Your task to perform on an android device: Go to Reddit.com Image 0: 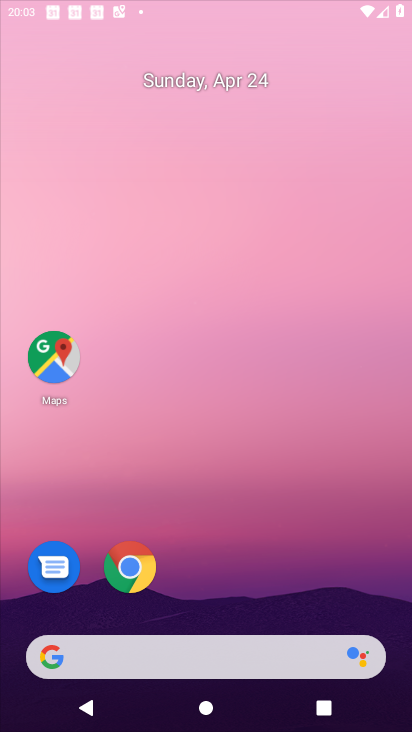
Step 0: click (226, 169)
Your task to perform on an android device: Go to Reddit.com Image 1: 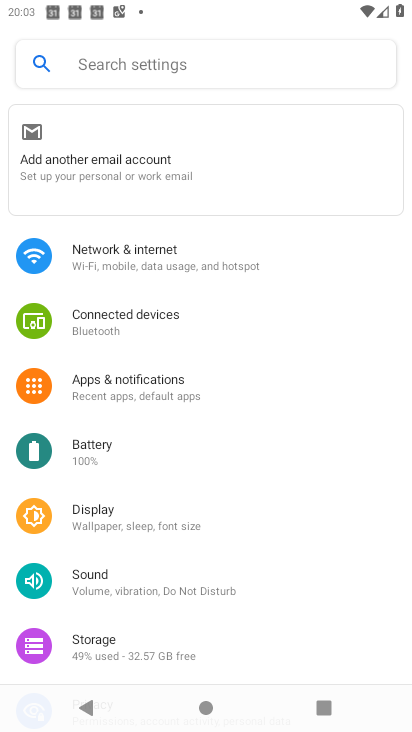
Step 1: press home button
Your task to perform on an android device: Go to Reddit.com Image 2: 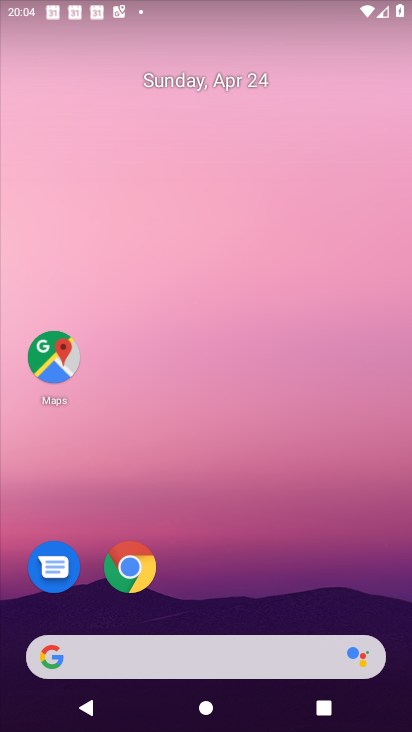
Step 2: drag from (351, 690) to (276, 103)
Your task to perform on an android device: Go to Reddit.com Image 3: 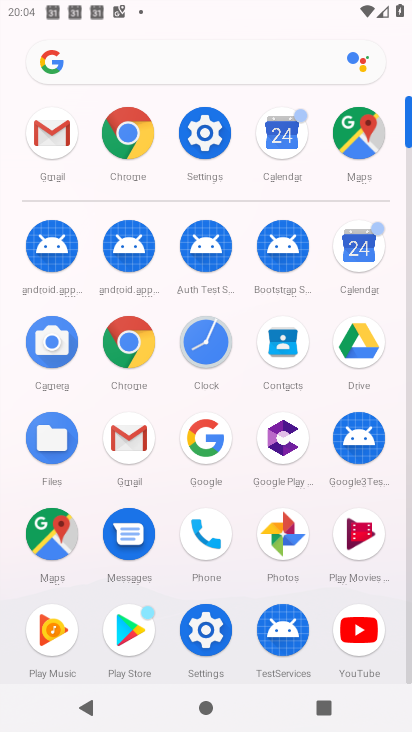
Step 3: click (138, 133)
Your task to perform on an android device: Go to Reddit.com Image 4: 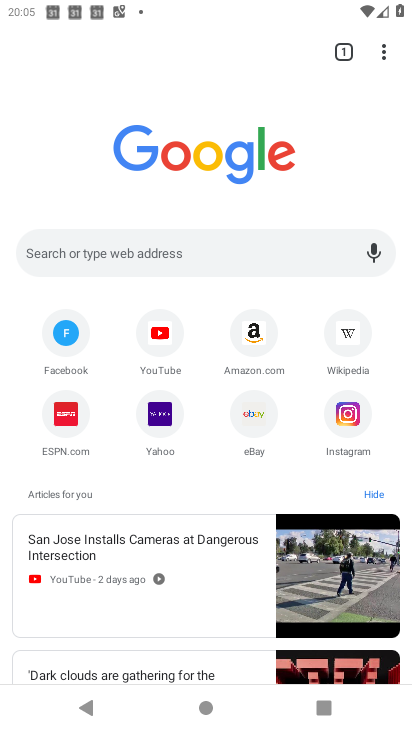
Step 4: click (143, 256)
Your task to perform on an android device: Go to Reddit.com Image 5: 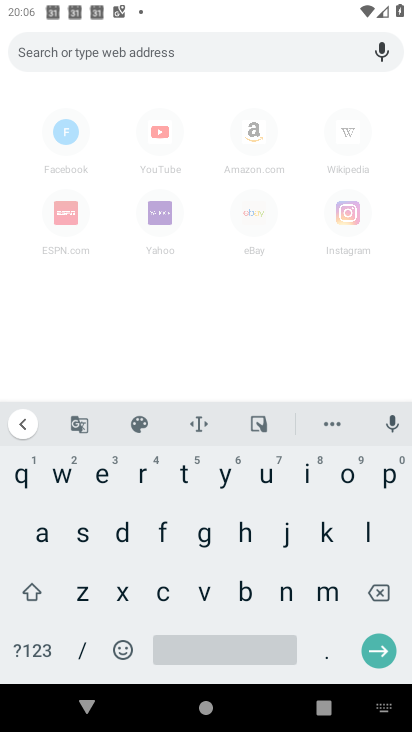
Step 5: click (136, 480)
Your task to perform on an android device: Go to Reddit.com Image 6: 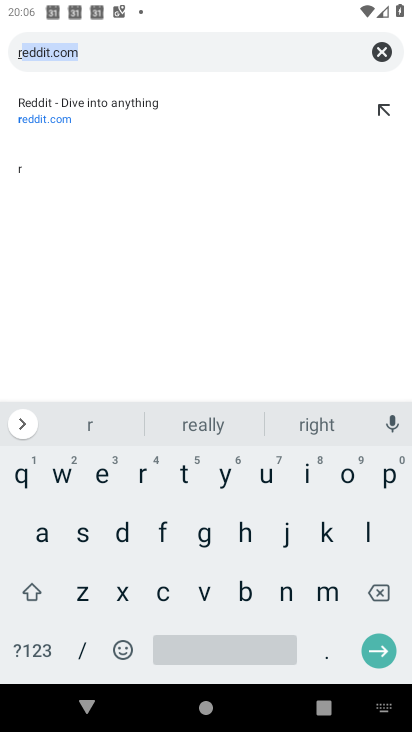
Step 6: click (98, 475)
Your task to perform on an android device: Go to Reddit.com Image 7: 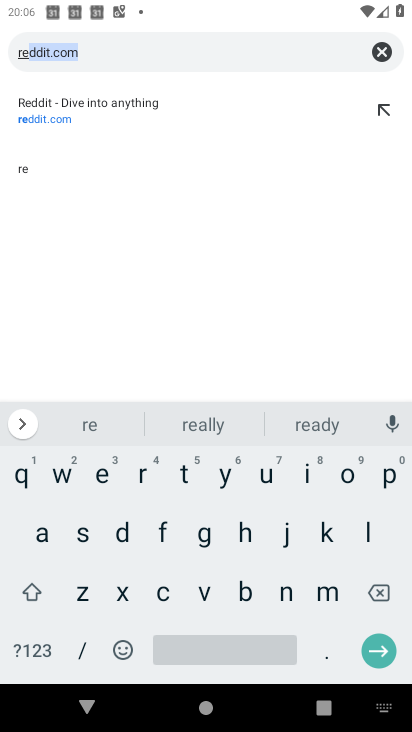
Step 7: click (123, 534)
Your task to perform on an android device: Go to Reddit.com Image 8: 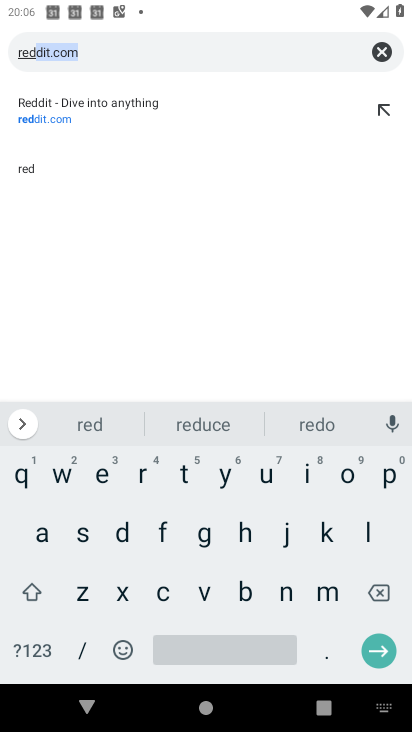
Step 8: click (147, 111)
Your task to perform on an android device: Go to Reddit.com Image 9: 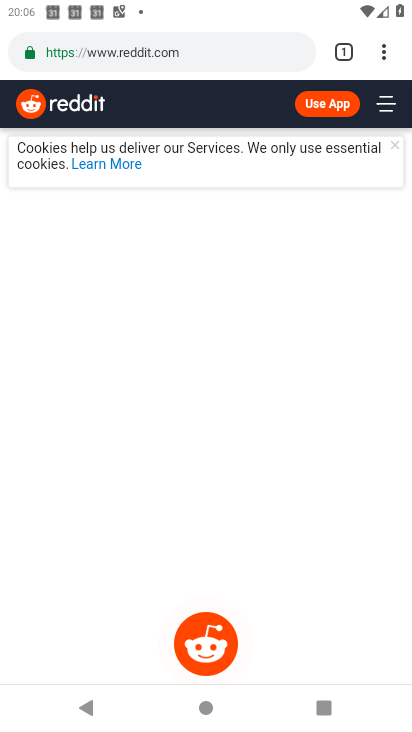
Step 9: task complete